Your task to perform on an android device: Is it going to rain this weekend? Image 0: 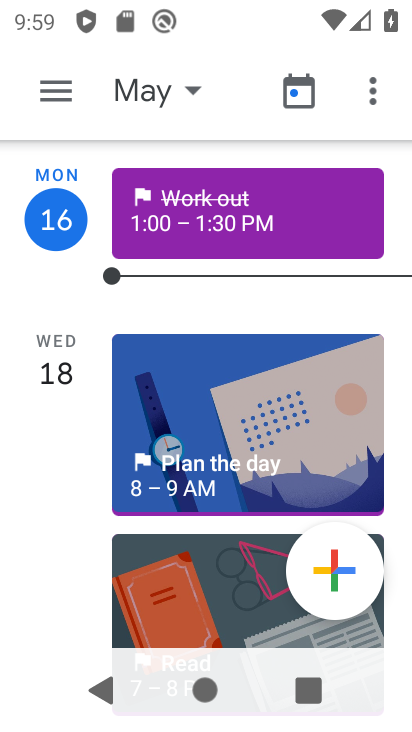
Step 0: press home button
Your task to perform on an android device: Is it going to rain this weekend? Image 1: 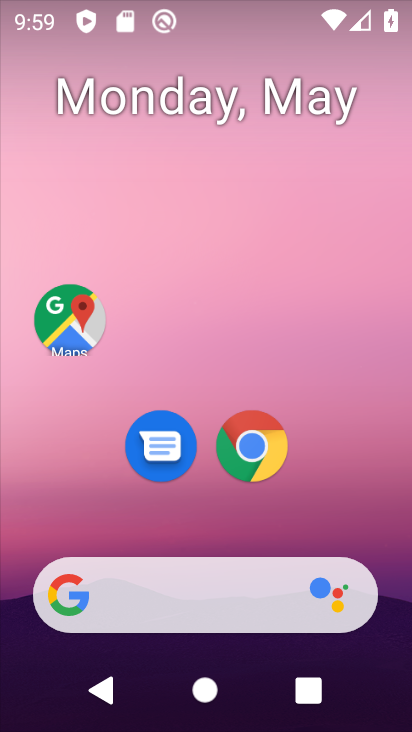
Step 1: drag from (25, 230) to (363, 266)
Your task to perform on an android device: Is it going to rain this weekend? Image 2: 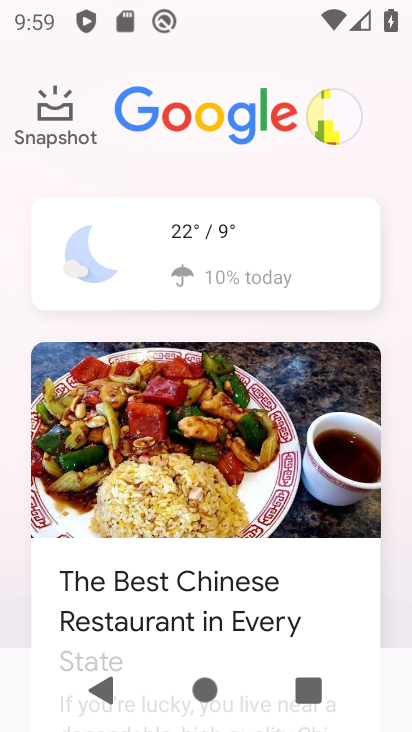
Step 2: click (314, 244)
Your task to perform on an android device: Is it going to rain this weekend? Image 3: 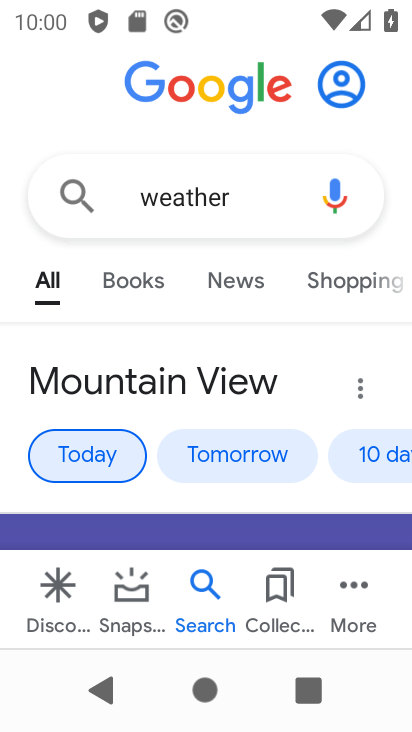
Step 3: click (375, 449)
Your task to perform on an android device: Is it going to rain this weekend? Image 4: 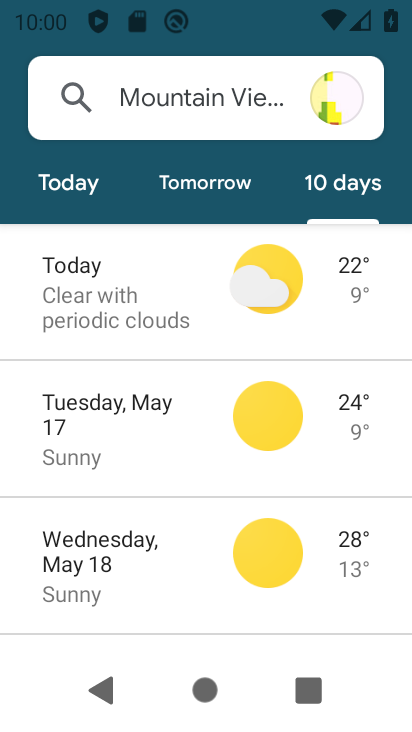
Step 4: task complete